Your task to perform on an android device: Clear the cart on bestbuy.com. Add dell xps to the cart on bestbuy.com, then select checkout. Image 0: 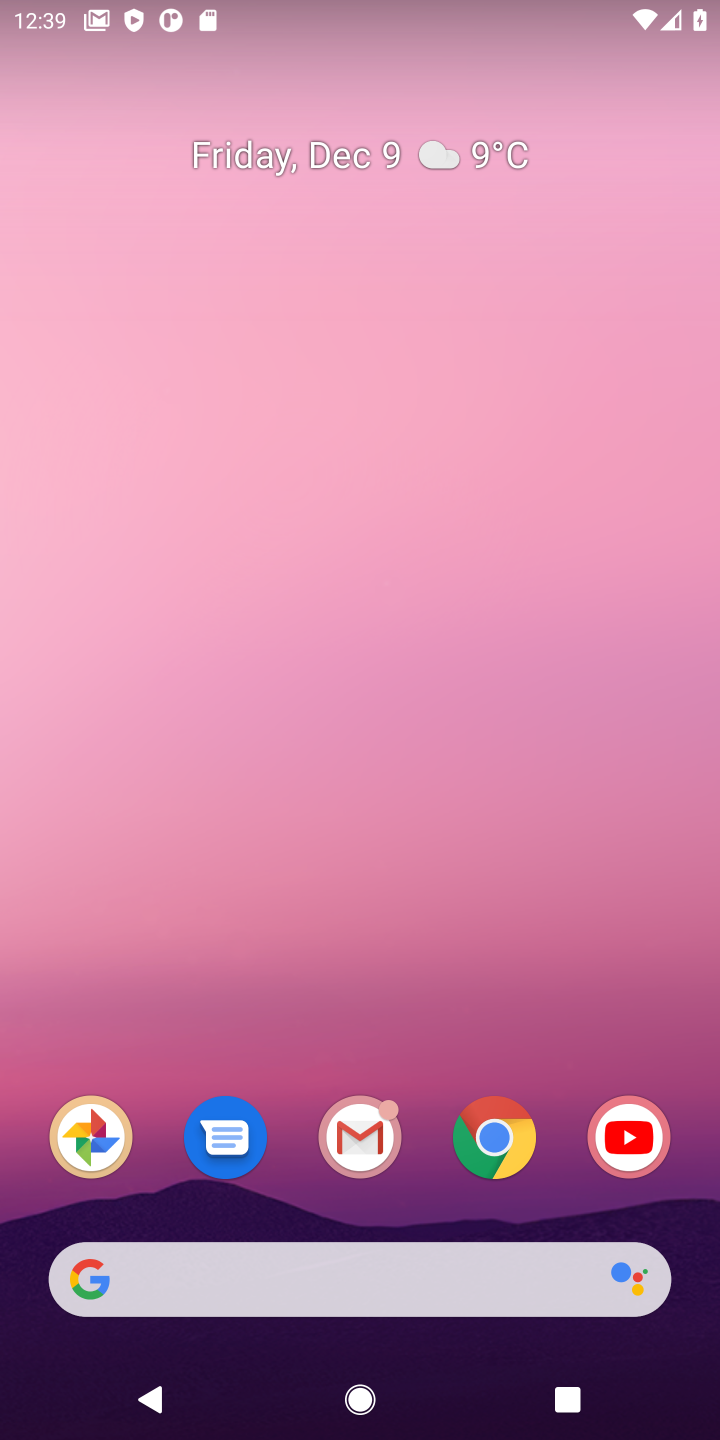
Step 0: click (250, 1252)
Your task to perform on an android device: Clear the cart on bestbuy.com. Add dell xps to the cart on bestbuy.com, then select checkout. Image 1: 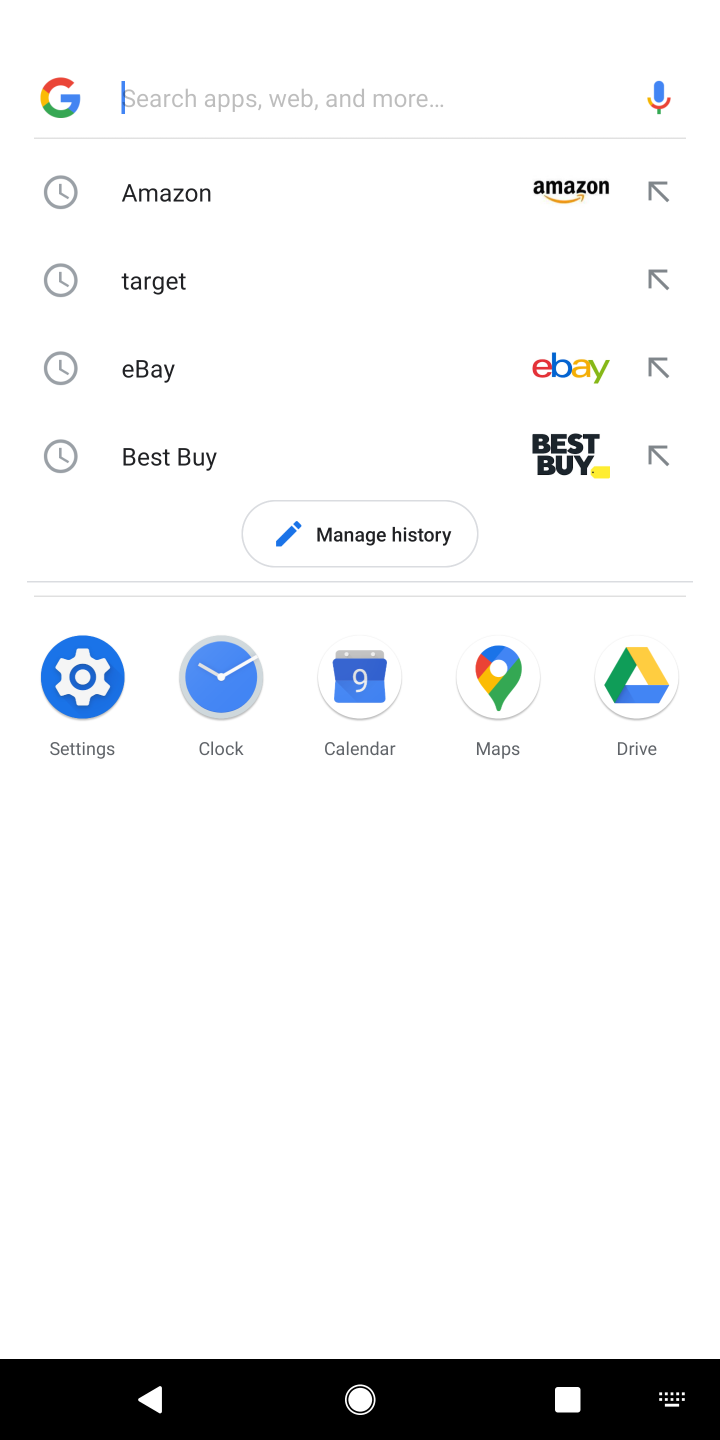
Step 1: click (187, 461)
Your task to perform on an android device: Clear the cart on bestbuy.com. Add dell xps to the cart on bestbuy.com, then select checkout. Image 2: 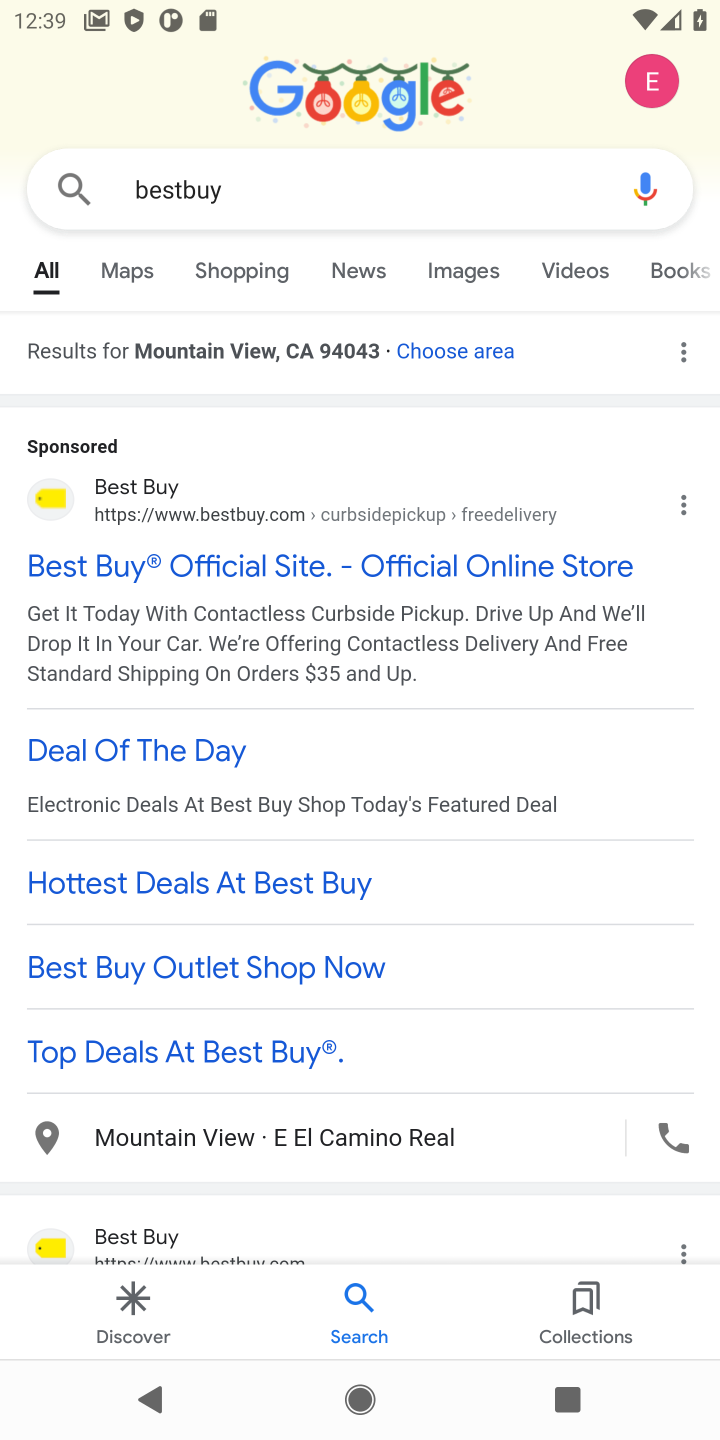
Step 2: click (131, 569)
Your task to perform on an android device: Clear the cart on bestbuy.com. Add dell xps to the cart on bestbuy.com, then select checkout. Image 3: 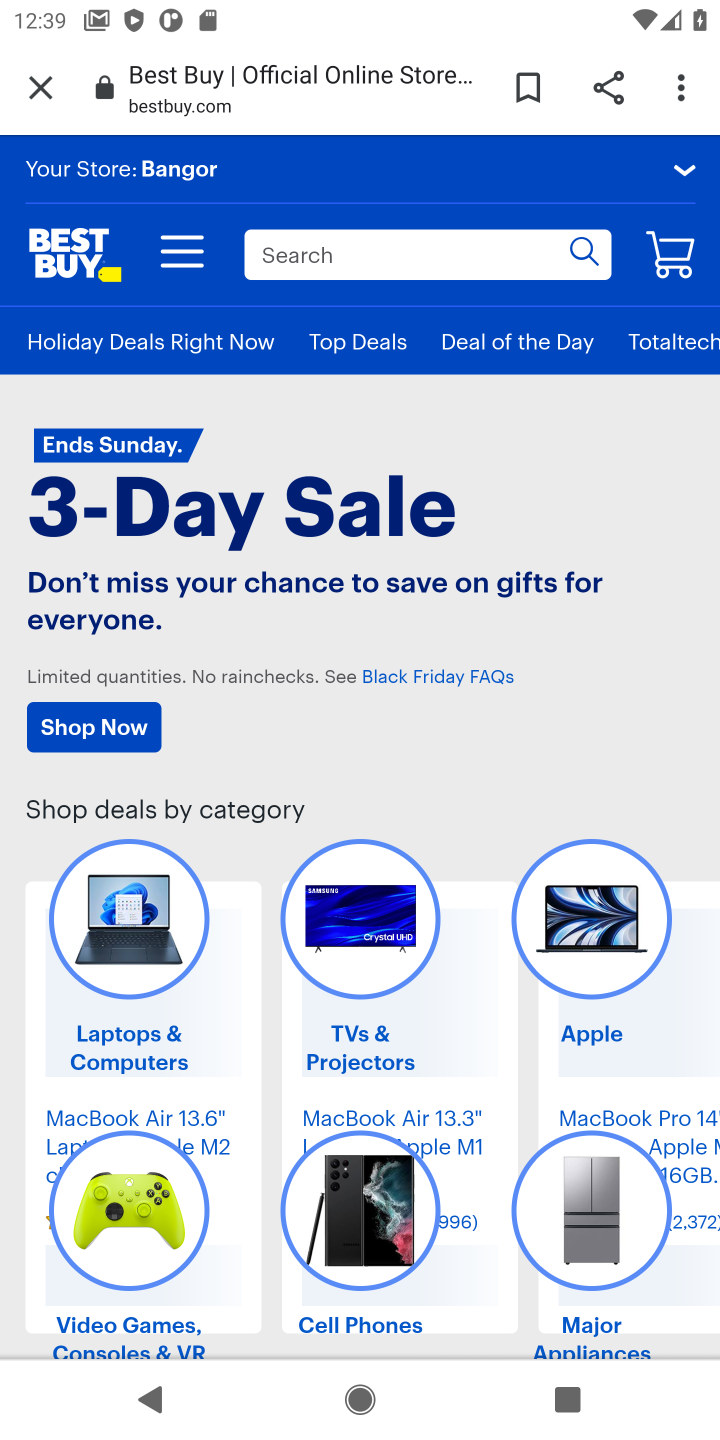
Step 3: click (354, 240)
Your task to perform on an android device: Clear the cart on bestbuy.com. Add dell xps to the cart on bestbuy.com, then select checkout. Image 4: 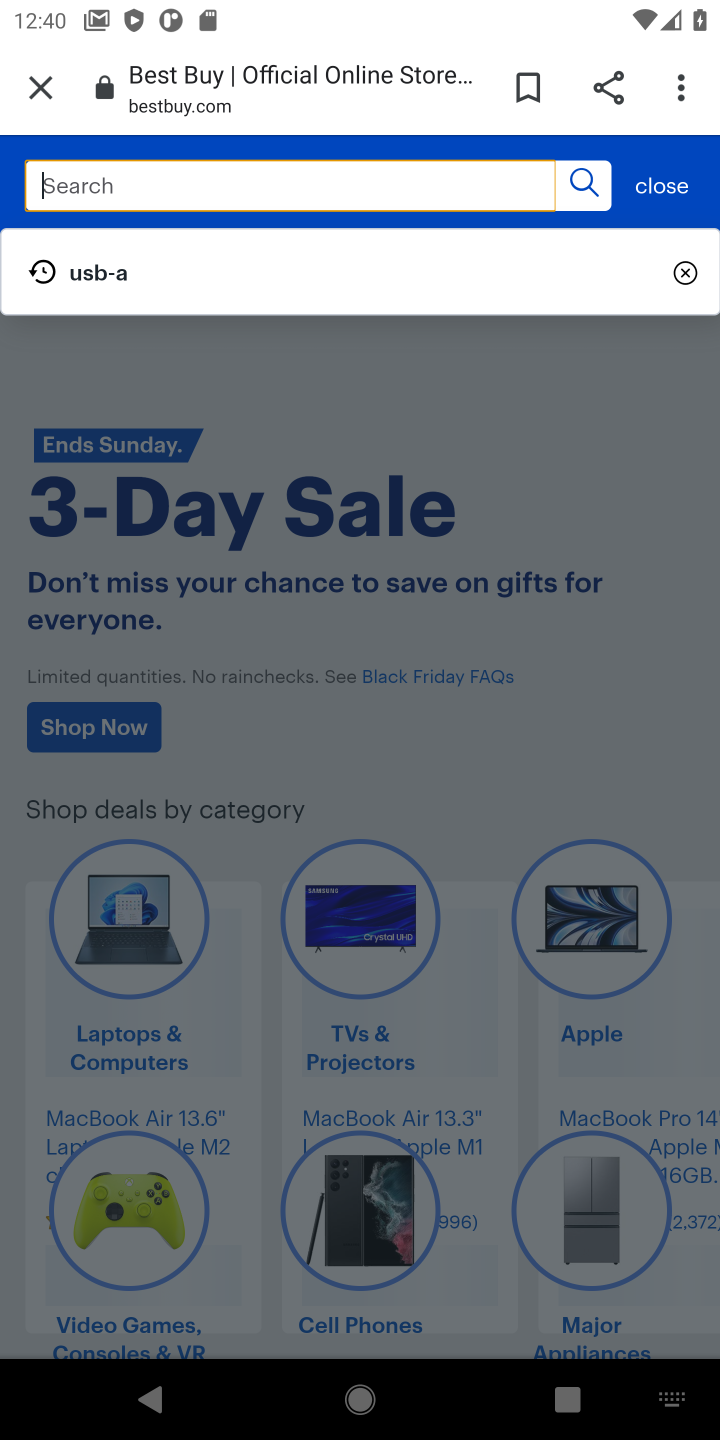
Step 4: type "dell xps"
Your task to perform on an android device: Clear the cart on bestbuy.com. Add dell xps to the cart on bestbuy.com, then select checkout. Image 5: 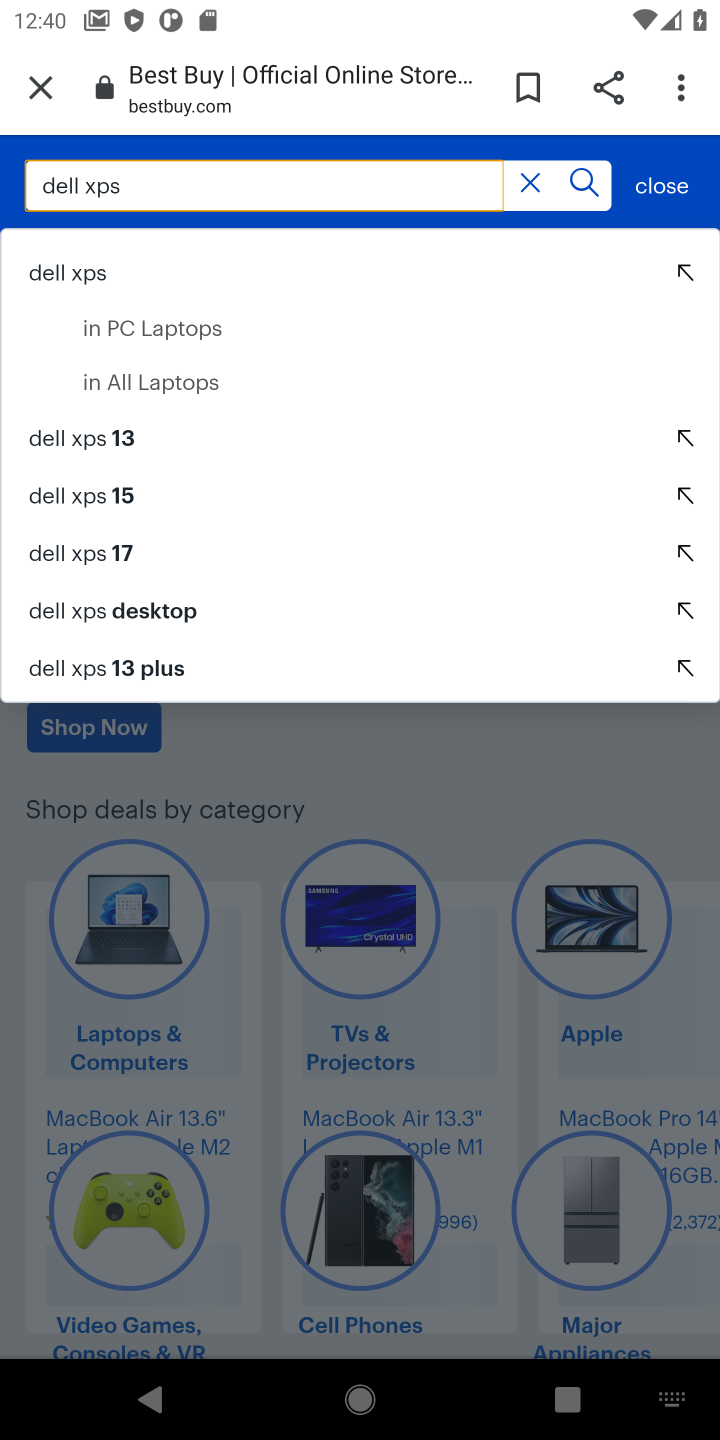
Step 5: click (130, 284)
Your task to perform on an android device: Clear the cart on bestbuy.com. Add dell xps to the cart on bestbuy.com, then select checkout. Image 6: 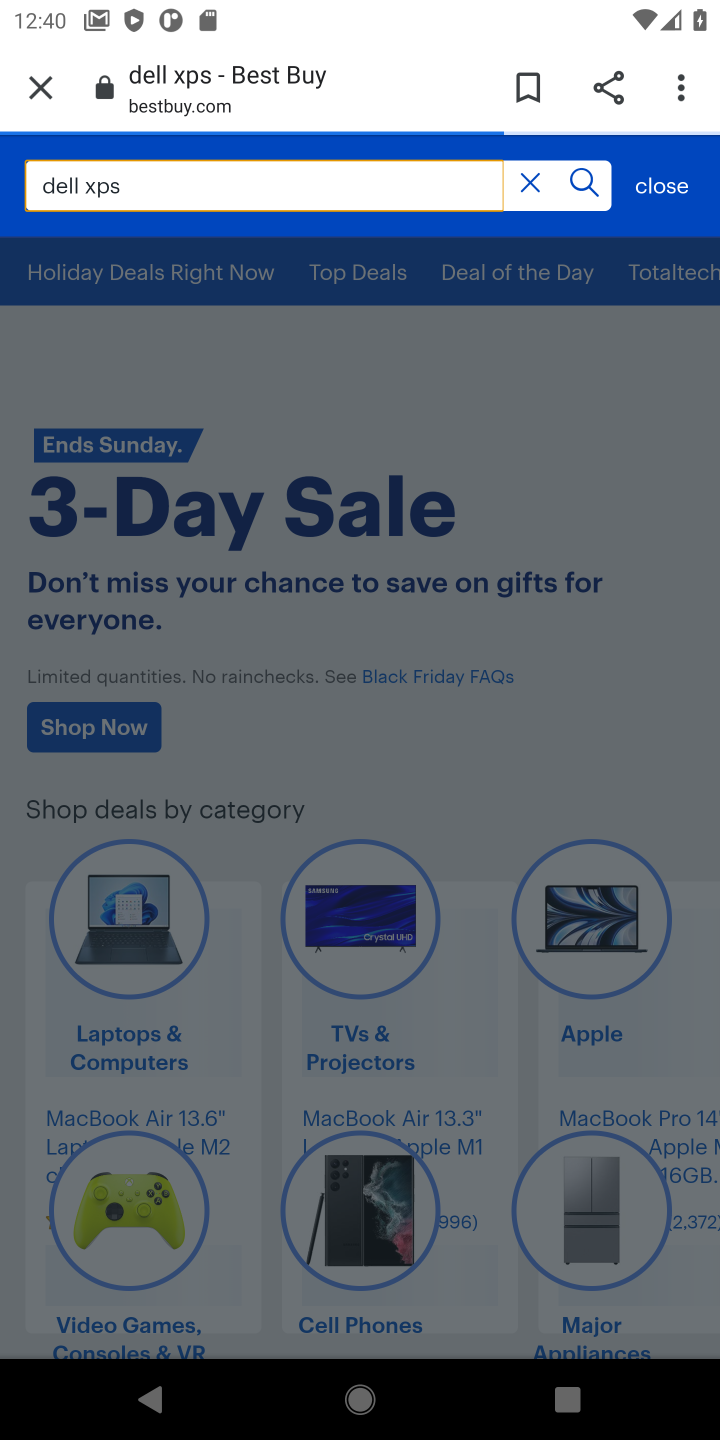
Step 6: click (571, 198)
Your task to perform on an android device: Clear the cart on bestbuy.com. Add dell xps to the cart on bestbuy.com, then select checkout. Image 7: 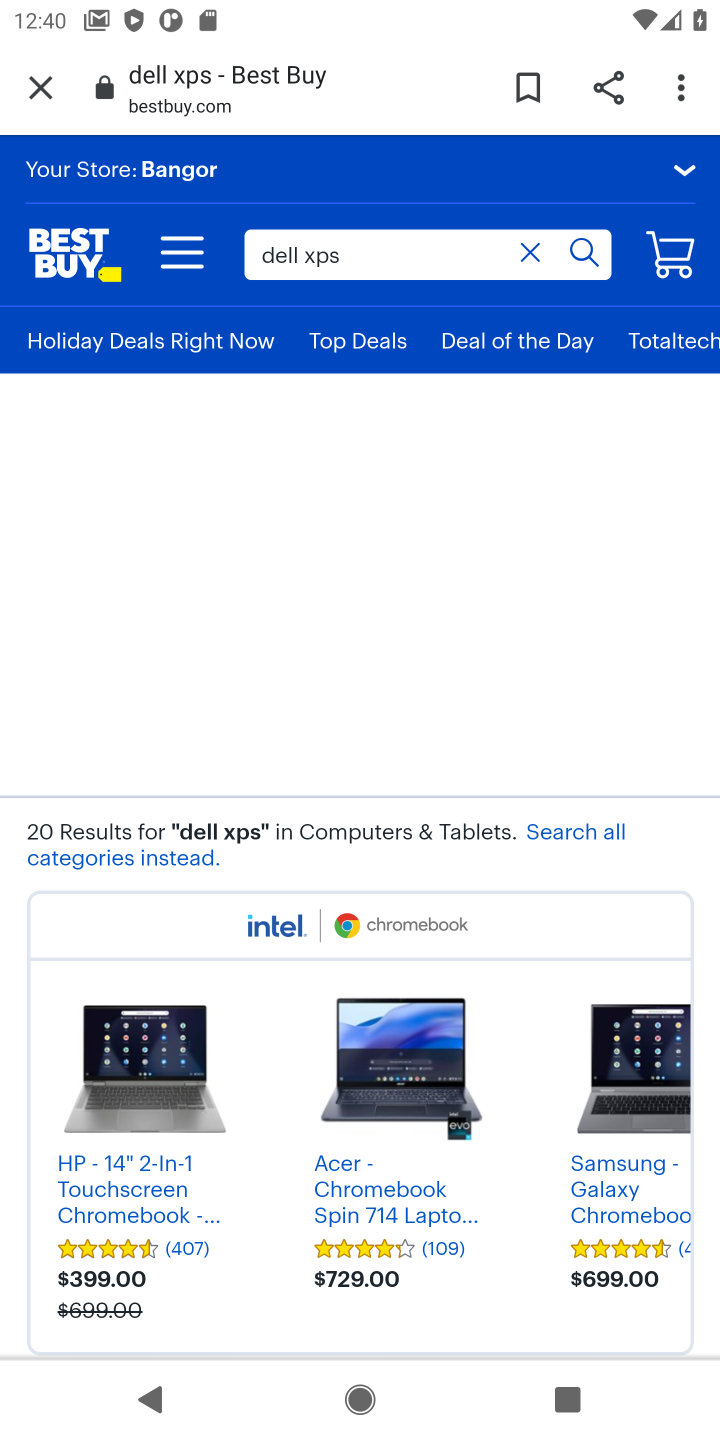
Step 7: click (574, 273)
Your task to perform on an android device: Clear the cart on bestbuy.com. Add dell xps to the cart on bestbuy.com, then select checkout. Image 8: 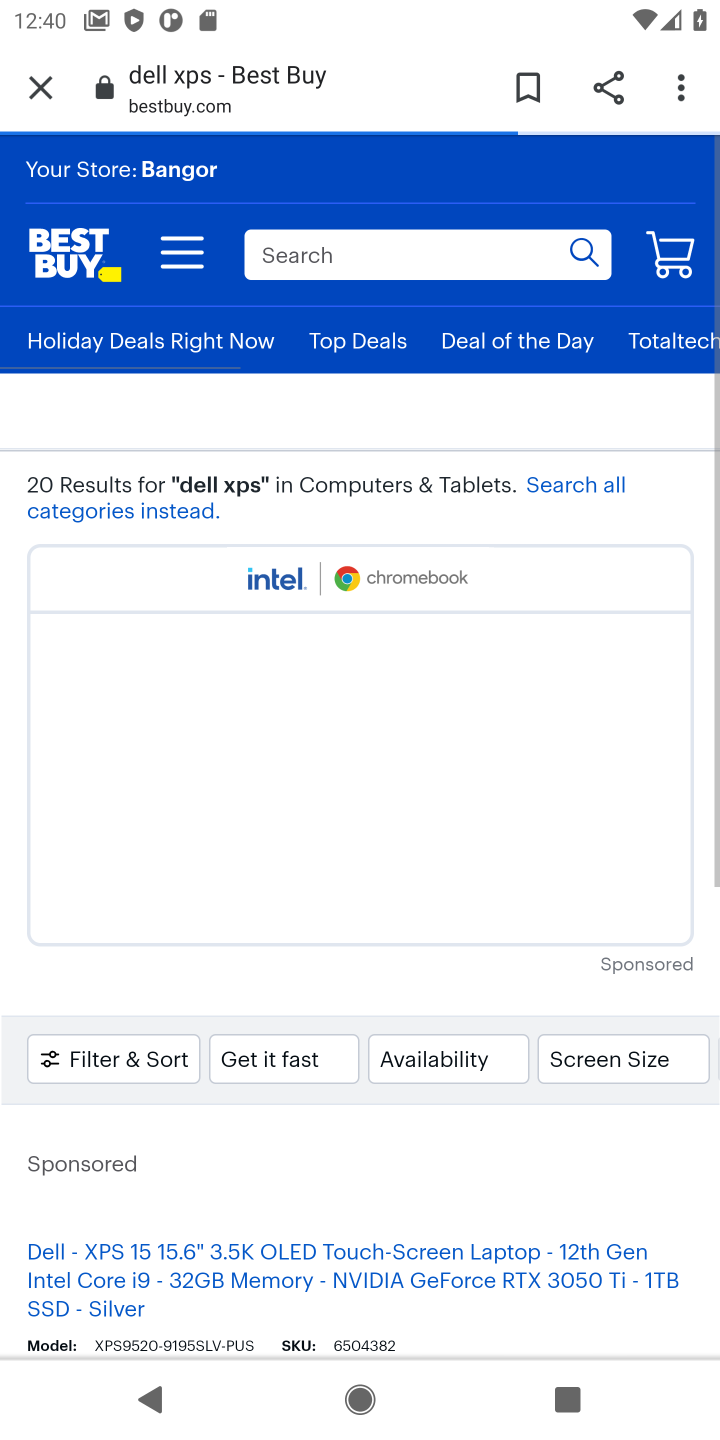
Step 8: task complete